Your task to perform on an android device: Open internet settings Image 0: 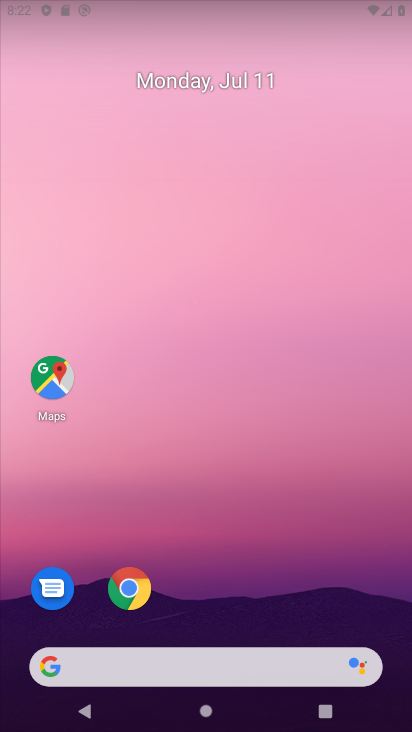
Step 0: drag from (134, 701) to (168, 196)
Your task to perform on an android device: Open internet settings Image 1: 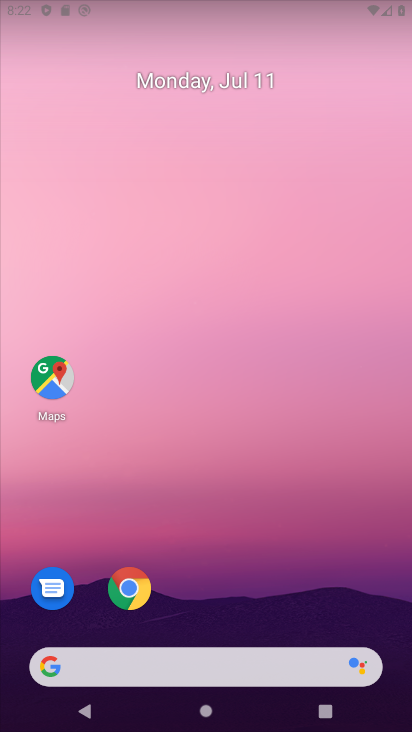
Step 1: drag from (257, 685) to (333, 10)
Your task to perform on an android device: Open internet settings Image 2: 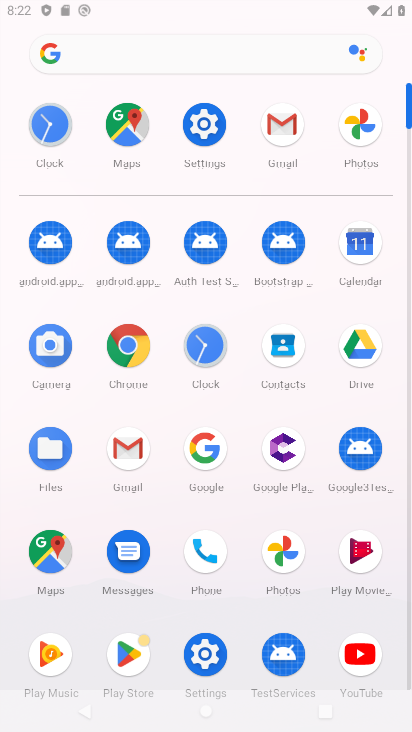
Step 2: click (214, 116)
Your task to perform on an android device: Open internet settings Image 3: 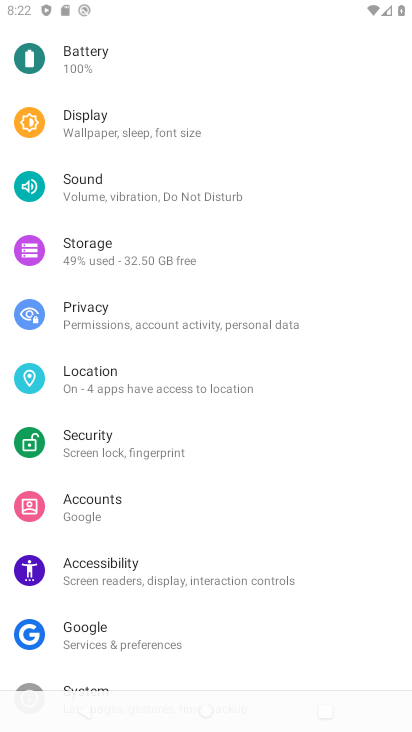
Step 3: drag from (288, 116) to (257, 665)
Your task to perform on an android device: Open internet settings Image 4: 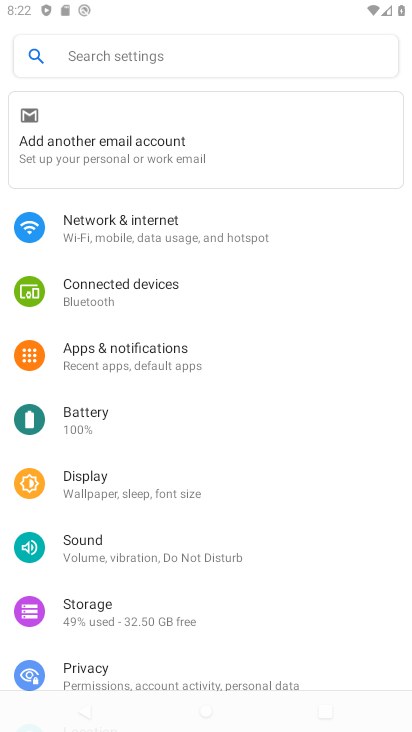
Step 4: click (210, 232)
Your task to perform on an android device: Open internet settings Image 5: 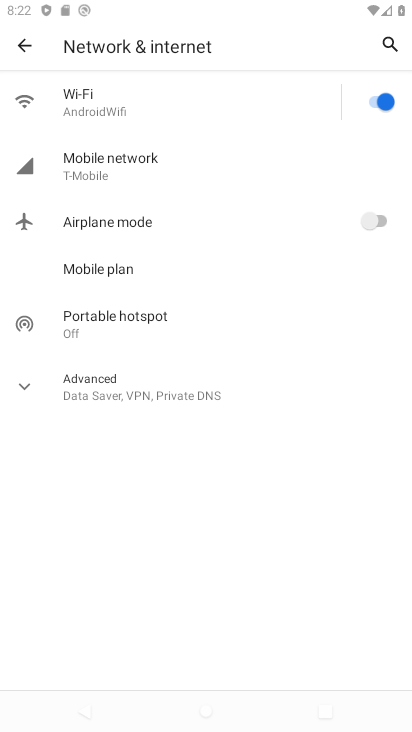
Step 5: click (145, 96)
Your task to perform on an android device: Open internet settings Image 6: 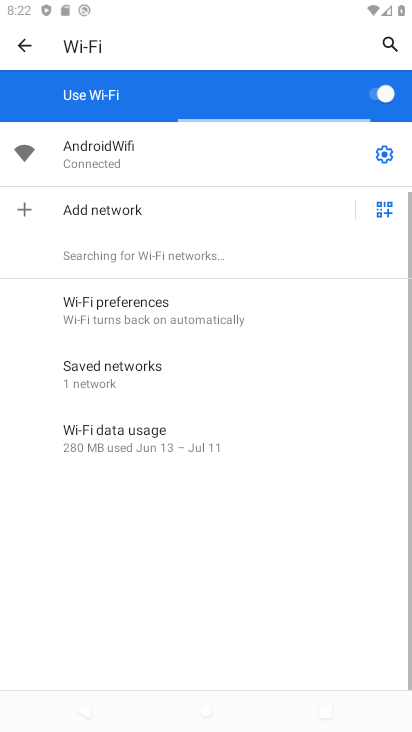
Step 6: task complete